Your task to perform on an android device: clear all cookies in the chrome app Image 0: 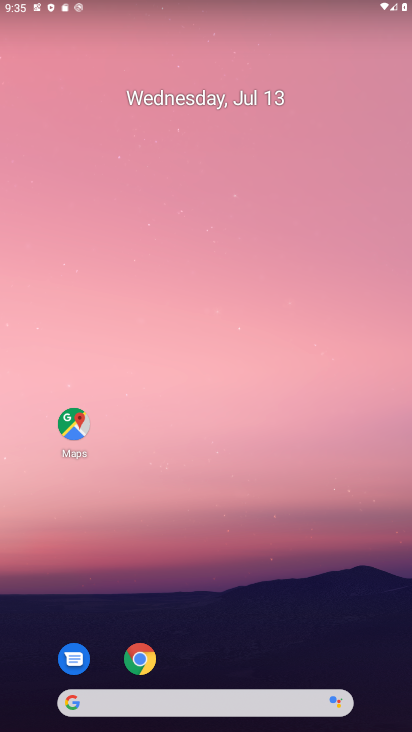
Step 0: click (149, 666)
Your task to perform on an android device: clear all cookies in the chrome app Image 1: 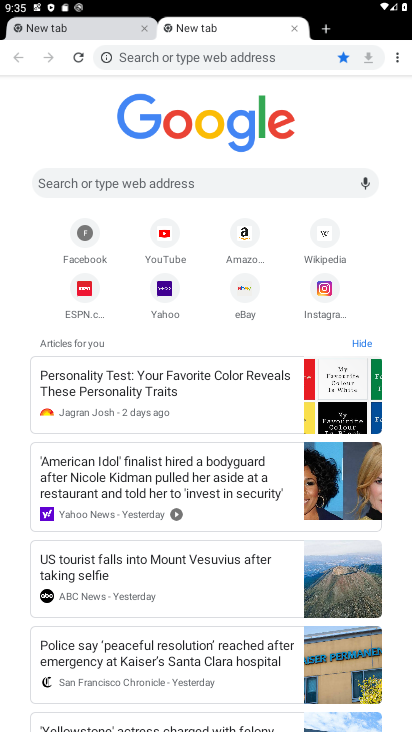
Step 1: drag from (392, 63) to (309, 178)
Your task to perform on an android device: clear all cookies in the chrome app Image 2: 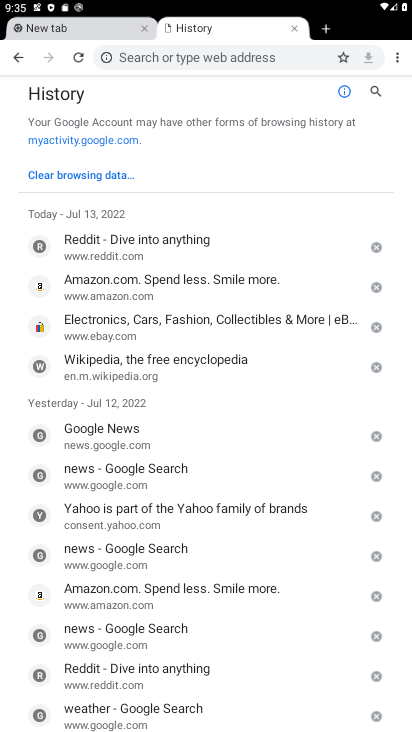
Step 2: click (104, 176)
Your task to perform on an android device: clear all cookies in the chrome app Image 3: 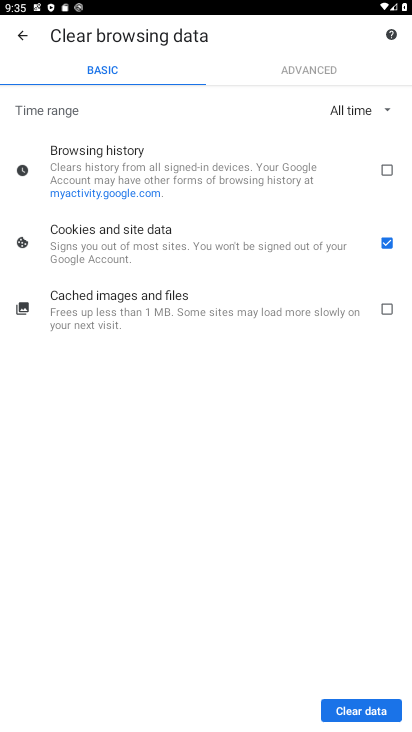
Step 3: click (364, 715)
Your task to perform on an android device: clear all cookies in the chrome app Image 4: 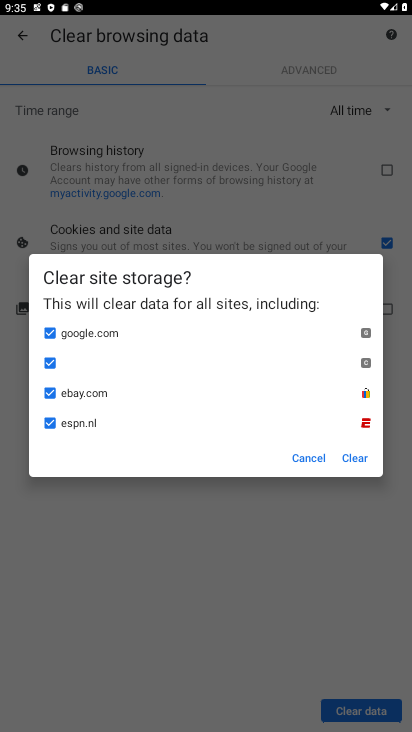
Step 4: click (357, 453)
Your task to perform on an android device: clear all cookies in the chrome app Image 5: 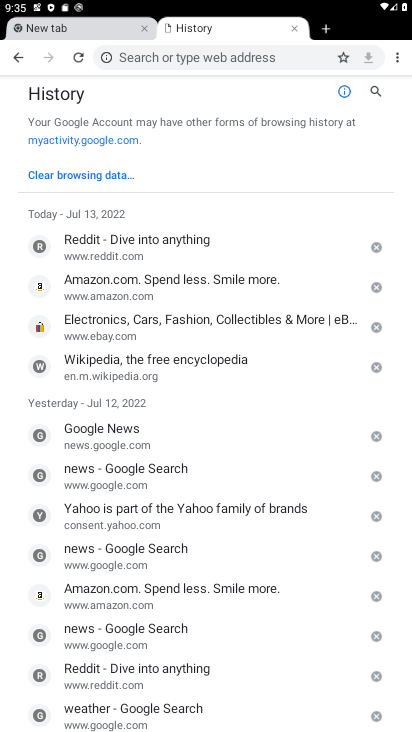
Step 5: task complete